Your task to perform on an android device: delete the emails in spam in the gmail app Image 0: 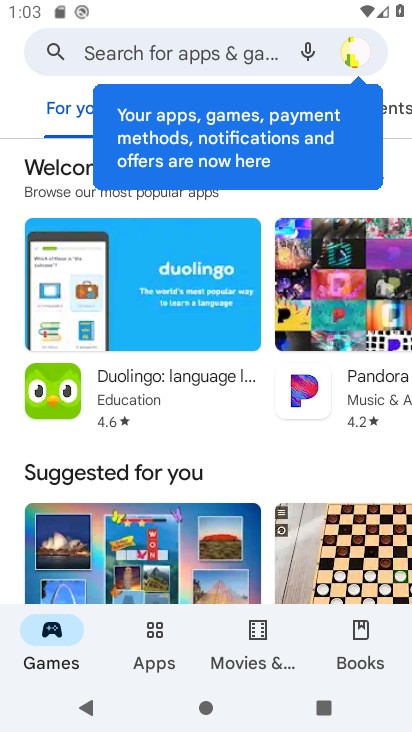
Step 0: press home button
Your task to perform on an android device: delete the emails in spam in the gmail app Image 1: 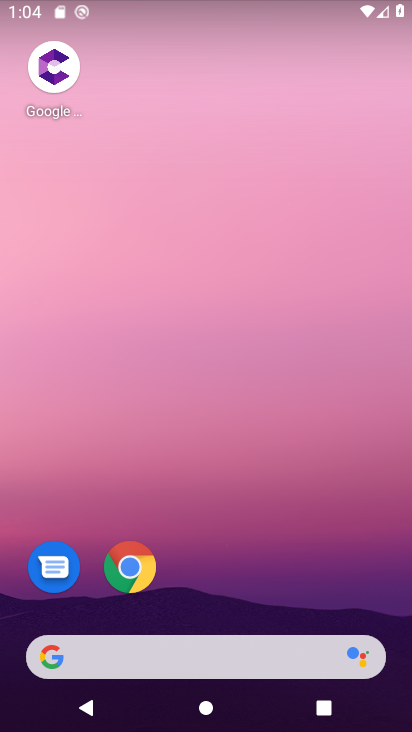
Step 1: drag from (296, 501) to (405, 5)
Your task to perform on an android device: delete the emails in spam in the gmail app Image 2: 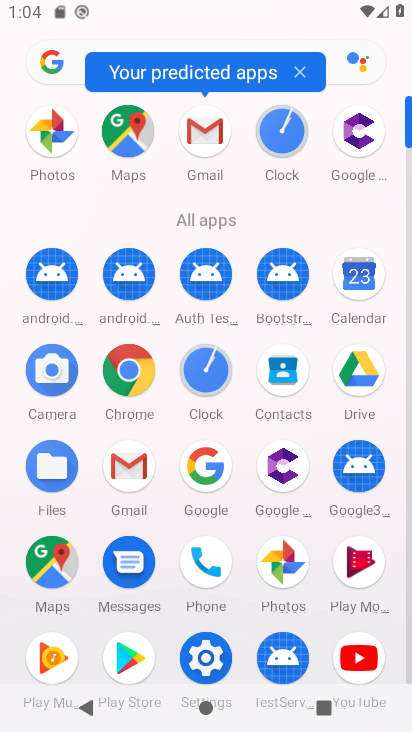
Step 2: click (126, 476)
Your task to perform on an android device: delete the emails in spam in the gmail app Image 3: 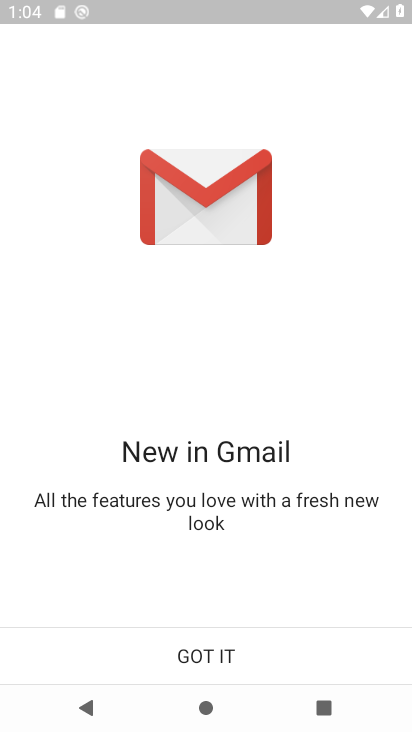
Step 3: click (218, 672)
Your task to perform on an android device: delete the emails in spam in the gmail app Image 4: 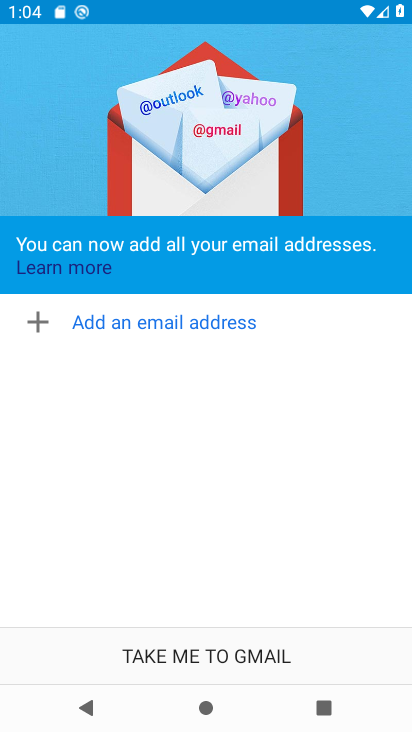
Step 4: click (218, 672)
Your task to perform on an android device: delete the emails in spam in the gmail app Image 5: 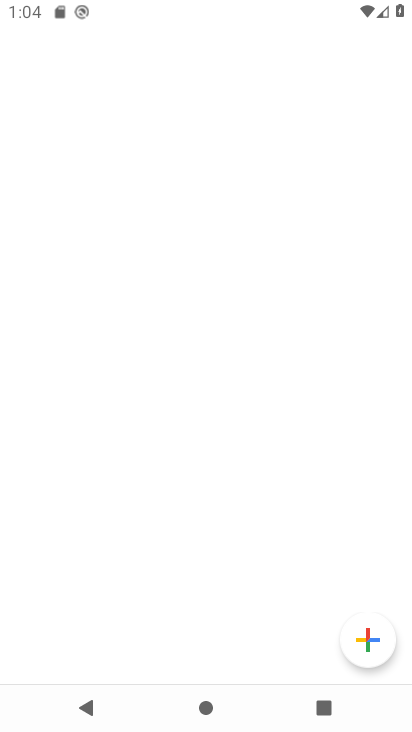
Step 5: click (218, 672)
Your task to perform on an android device: delete the emails in spam in the gmail app Image 6: 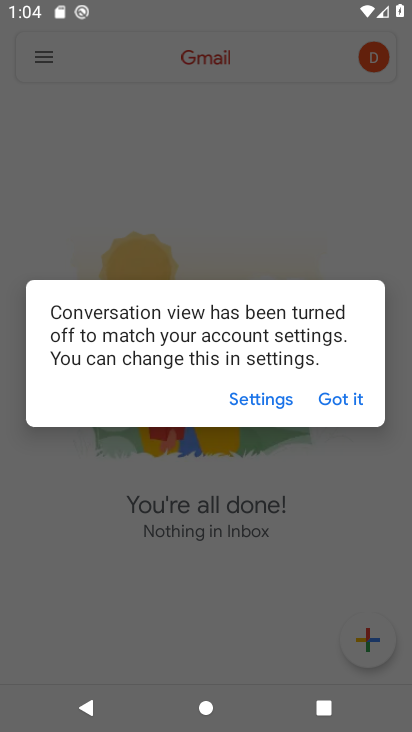
Step 6: click (335, 402)
Your task to perform on an android device: delete the emails in spam in the gmail app Image 7: 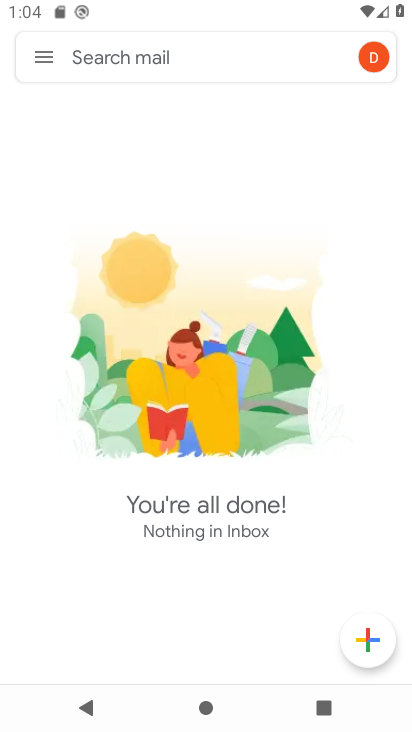
Step 7: task complete